Your task to perform on an android device: Search for acer predator on newegg.com, select the first entry, and add it to the cart. Image 0: 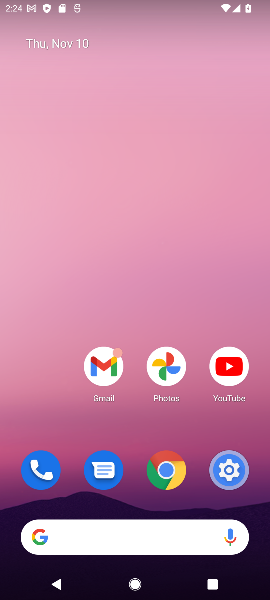
Step 0: click (160, 466)
Your task to perform on an android device: Search for acer predator on newegg.com, select the first entry, and add it to the cart. Image 1: 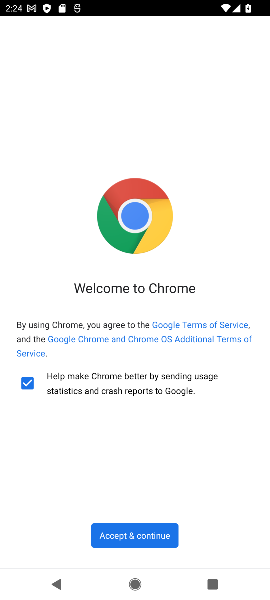
Step 1: click (151, 541)
Your task to perform on an android device: Search for acer predator on newegg.com, select the first entry, and add it to the cart. Image 2: 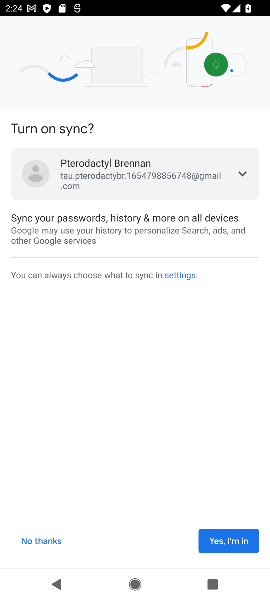
Step 2: click (222, 535)
Your task to perform on an android device: Search for acer predator on newegg.com, select the first entry, and add it to the cart. Image 3: 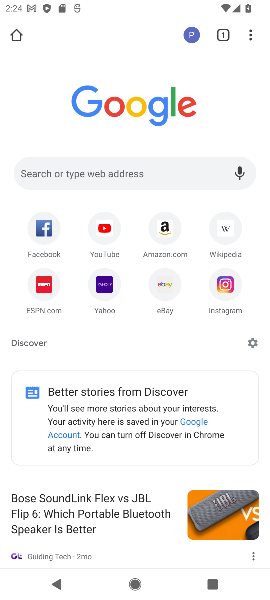
Step 3: click (120, 166)
Your task to perform on an android device: Search for acer predator on newegg.com, select the first entry, and add it to the cart. Image 4: 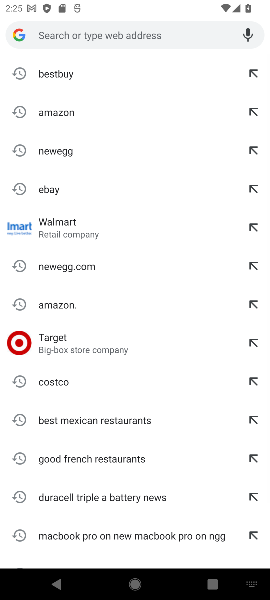
Step 4: click (64, 268)
Your task to perform on an android device: Search for acer predator on newegg.com, select the first entry, and add it to the cart. Image 5: 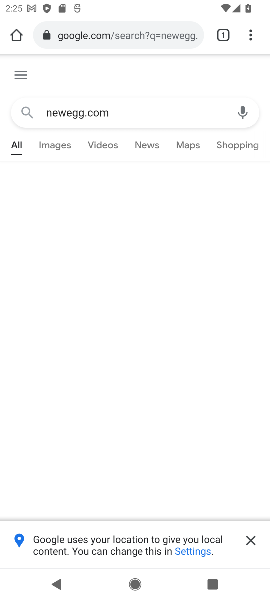
Step 5: click (248, 534)
Your task to perform on an android device: Search for acer predator on newegg.com, select the first entry, and add it to the cart. Image 6: 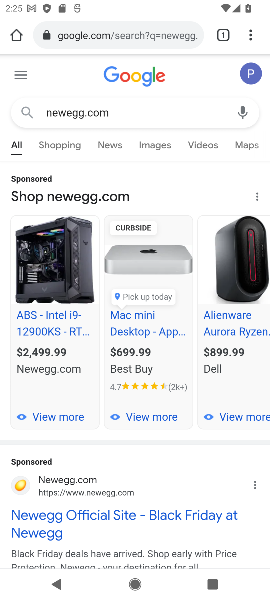
Step 6: drag from (109, 477) to (143, 242)
Your task to perform on an android device: Search for acer predator on newegg.com, select the first entry, and add it to the cart. Image 7: 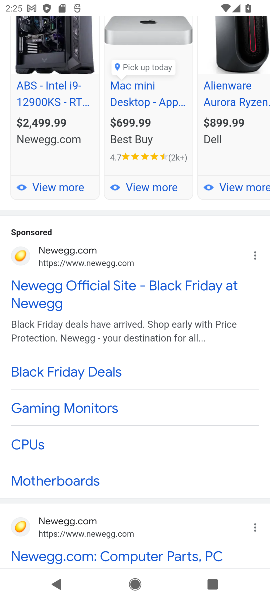
Step 7: drag from (146, 481) to (158, 220)
Your task to perform on an android device: Search for acer predator on newegg.com, select the first entry, and add it to the cart. Image 8: 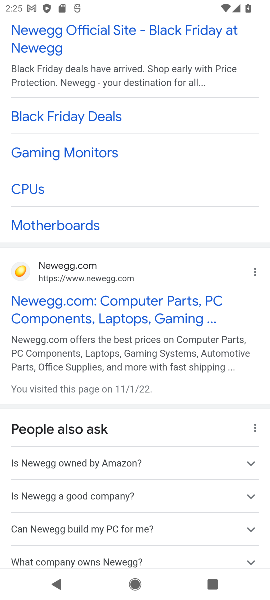
Step 8: click (45, 28)
Your task to perform on an android device: Search for acer predator on newegg.com, select the first entry, and add it to the cart. Image 9: 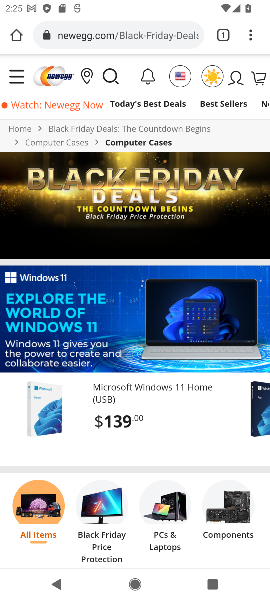
Step 9: click (109, 75)
Your task to perform on an android device: Search for acer predator on newegg.com, select the first entry, and add it to the cart. Image 10: 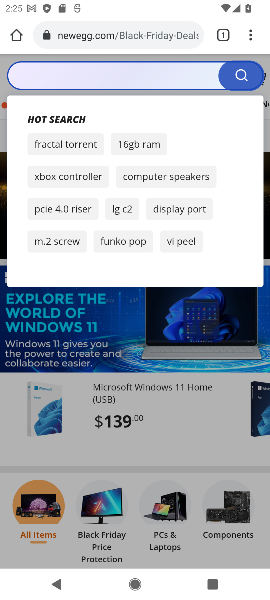
Step 10: type "acer predator"
Your task to perform on an android device: Search for acer predator on newegg.com, select the first entry, and add it to the cart. Image 11: 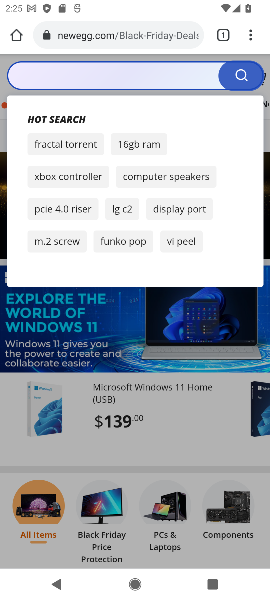
Step 11: click (39, 73)
Your task to perform on an android device: Search for acer predator on newegg.com, select the first entry, and add it to the cart. Image 12: 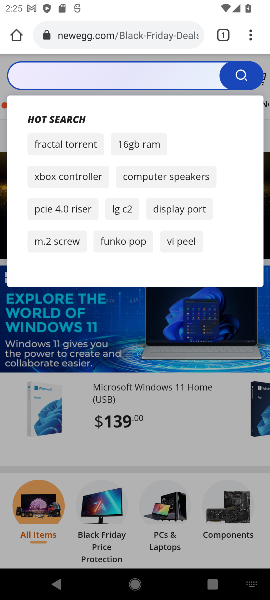
Step 12: type "acer predator"
Your task to perform on an android device: Search for acer predator on newegg.com, select the first entry, and add it to the cart. Image 13: 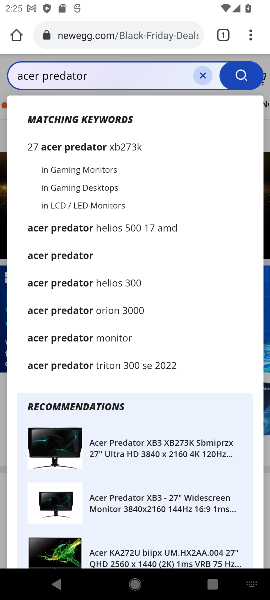
Step 13: click (244, 74)
Your task to perform on an android device: Search for acer predator on newegg.com, select the first entry, and add it to the cart. Image 14: 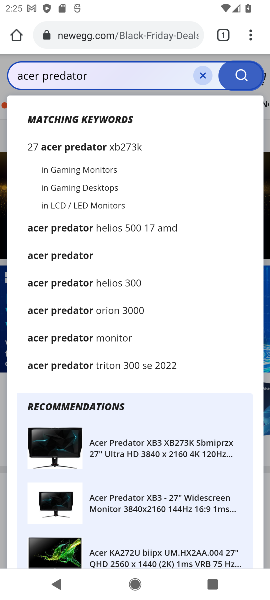
Step 14: click (61, 251)
Your task to perform on an android device: Search for acer predator on newegg.com, select the first entry, and add it to the cart. Image 15: 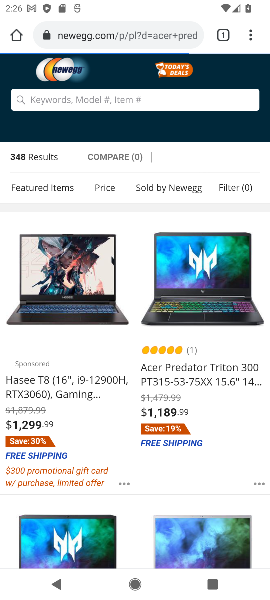
Step 15: click (140, 446)
Your task to perform on an android device: Search for acer predator on newegg.com, select the first entry, and add it to the cart. Image 16: 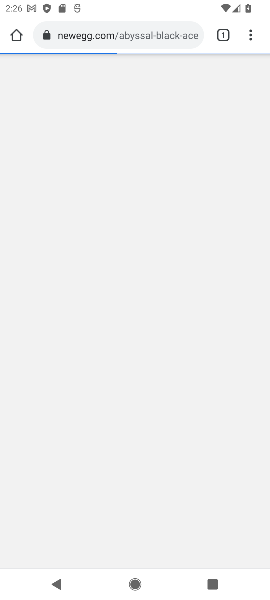
Step 16: click (200, 394)
Your task to perform on an android device: Search for acer predator on newegg.com, select the first entry, and add it to the cart. Image 17: 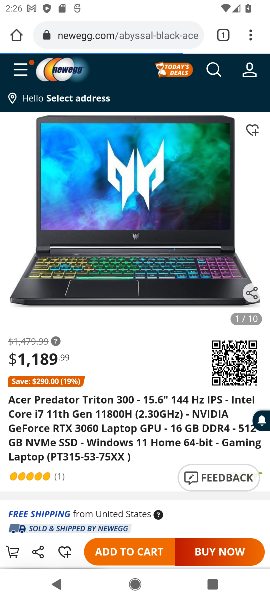
Step 17: click (131, 550)
Your task to perform on an android device: Search for acer predator on newegg.com, select the first entry, and add it to the cart. Image 18: 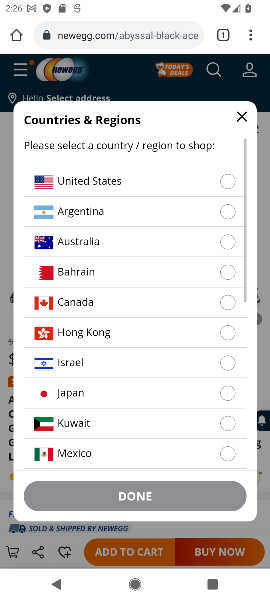
Step 18: click (168, 478)
Your task to perform on an android device: Search for acer predator on newegg.com, select the first entry, and add it to the cart. Image 19: 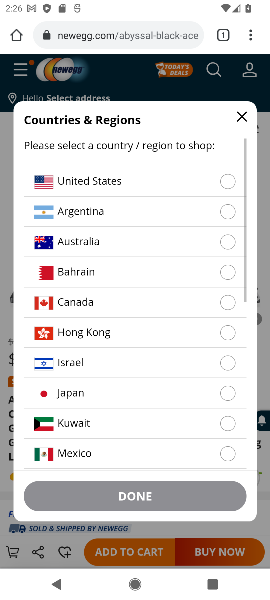
Step 19: click (227, 183)
Your task to perform on an android device: Search for acer predator on newegg.com, select the first entry, and add it to the cart. Image 20: 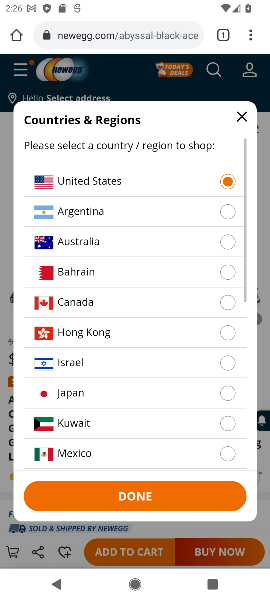
Step 20: click (149, 498)
Your task to perform on an android device: Search for acer predator on newegg.com, select the first entry, and add it to the cart. Image 21: 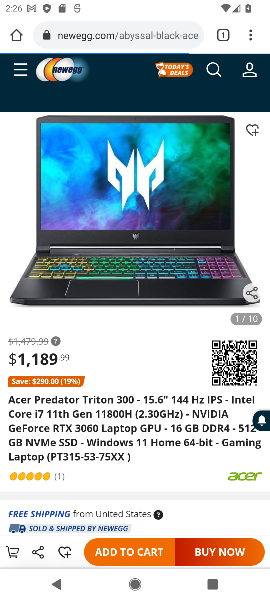
Step 21: click (138, 554)
Your task to perform on an android device: Search for acer predator on newegg.com, select the first entry, and add it to the cart. Image 22: 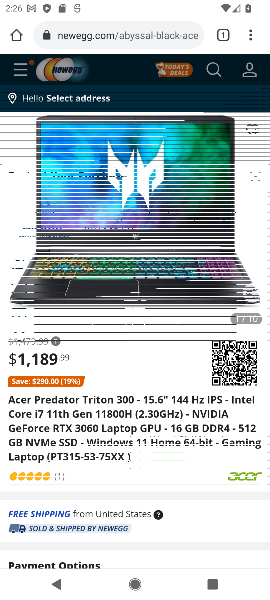
Step 22: task complete